Your task to perform on an android device: Open Wikipedia Image 0: 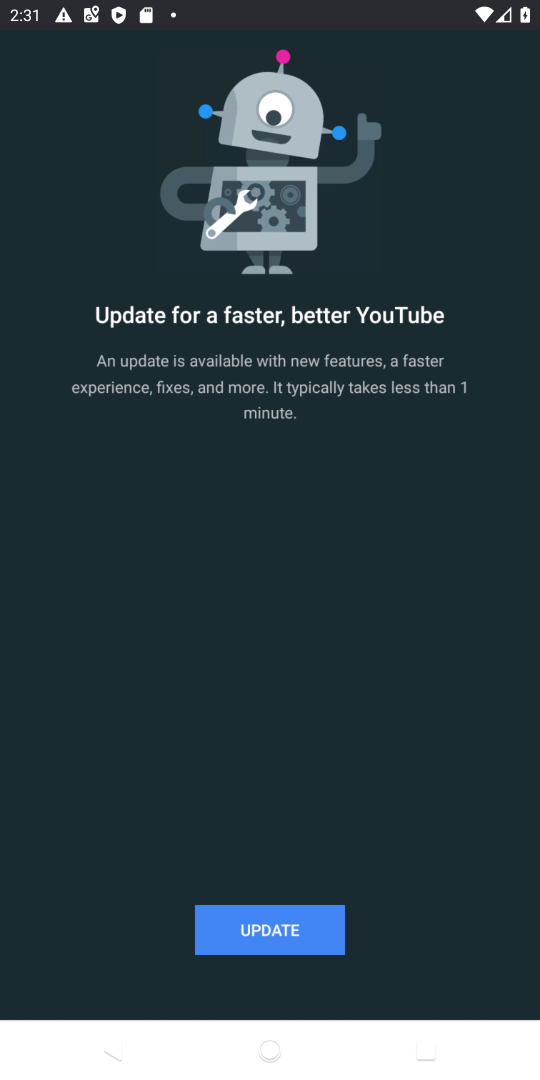
Step 0: drag from (129, 14) to (333, 75)
Your task to perform on an android device: Open Wikipedia Image 1: 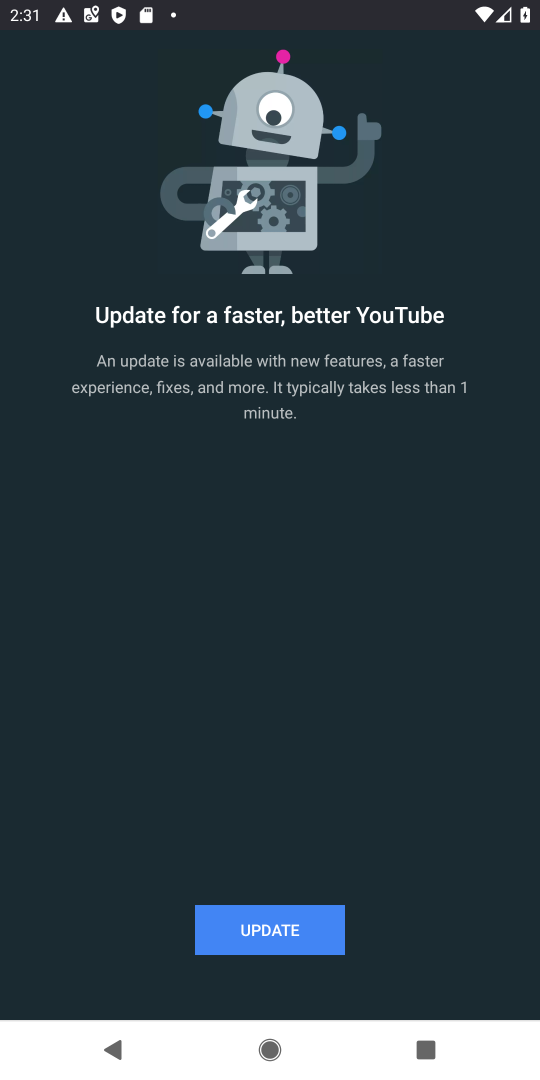
Step 1: press back button
Your task to perform on an android device: Open Wikipedia Image 2: 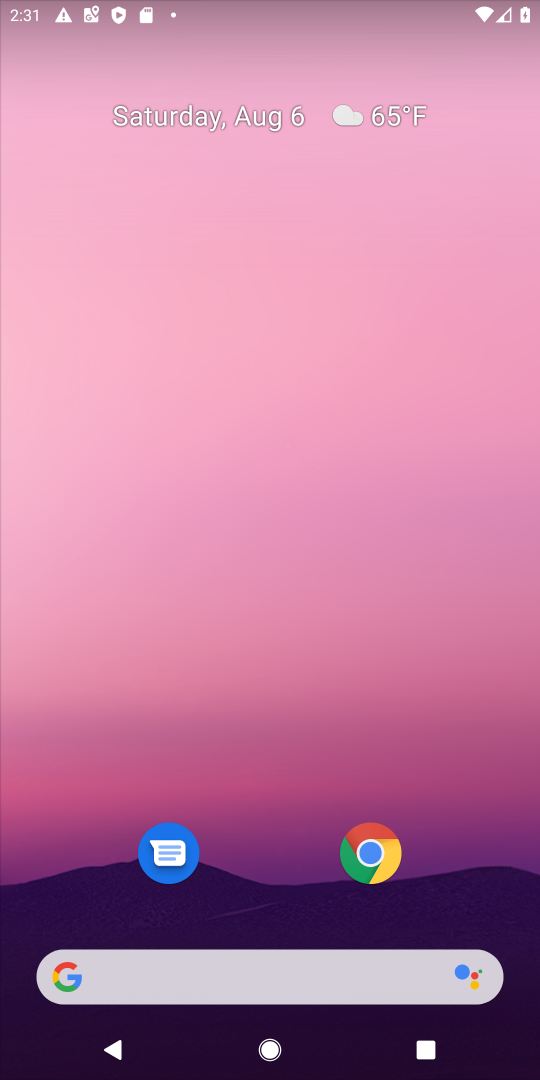
Step 2: click (370, 841)
Your task to perform on an android device: Open Wikipedia Image 3: 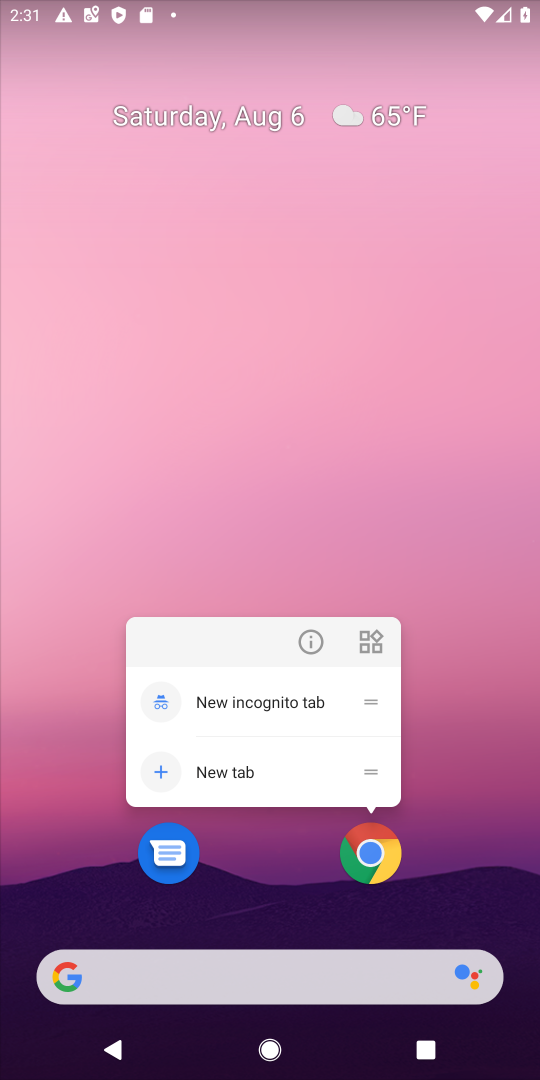
Step 3: click (382, 844)
Your task to perform on an android device: Open Wikipedia Image 4: 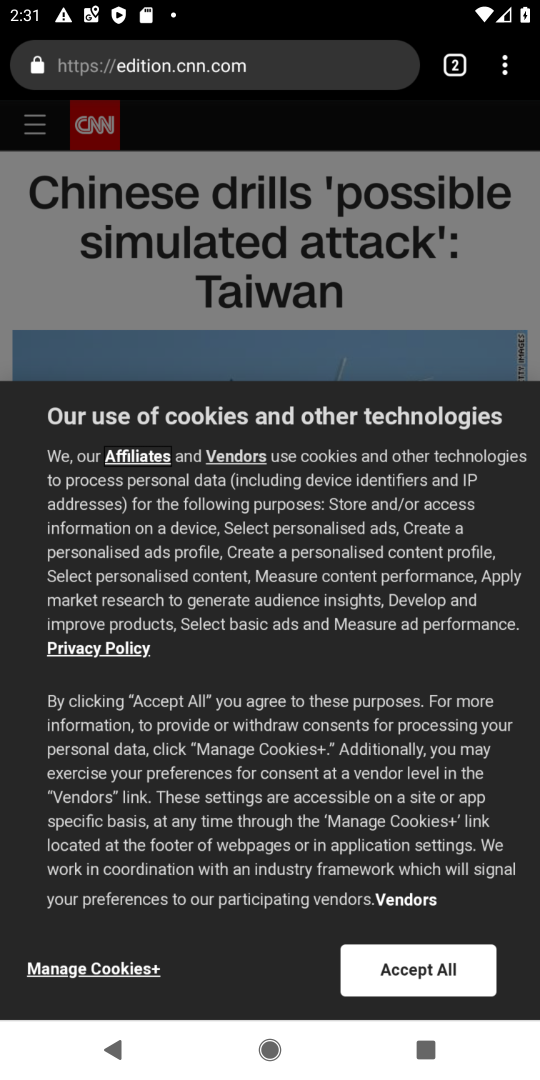
Step 4: click (467, 60)
Your task to perform on an android device: Open Wikipedia Image 5: 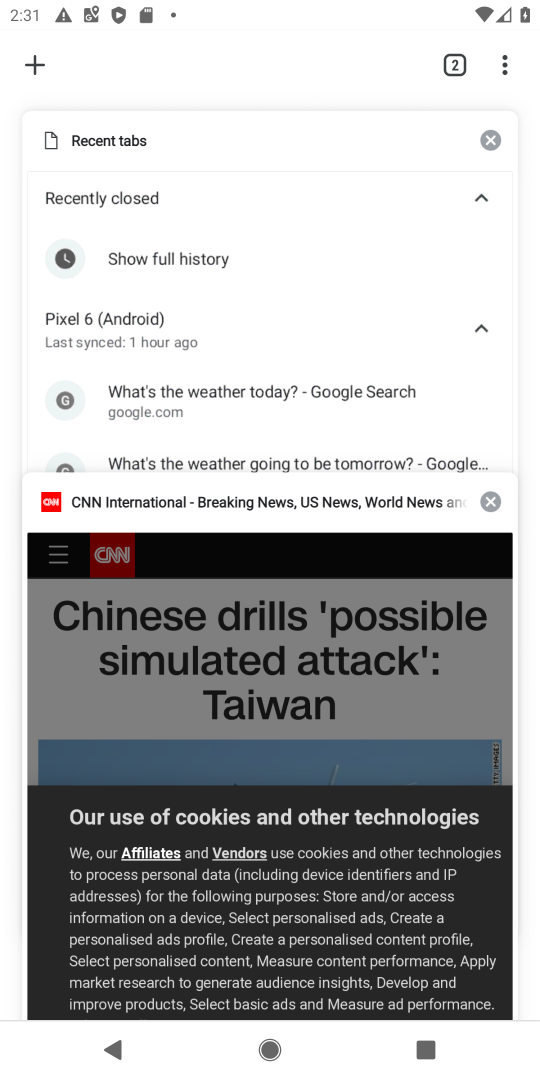
Step 5: click (44, 70)
Your task to perform on an android device: Open Wikipedia Image 6: 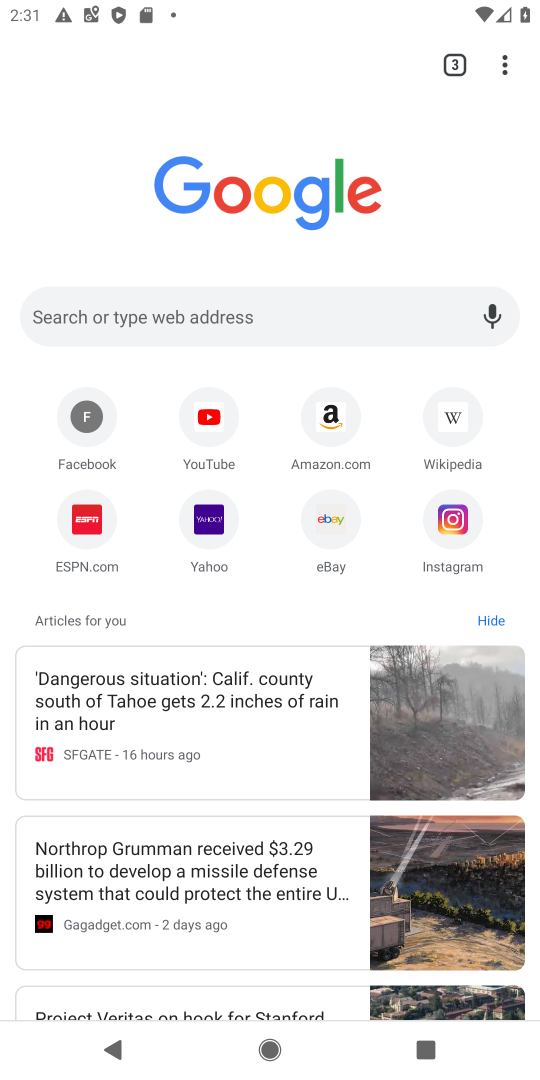
Step 6: click (446, 421)
Your task to perform on an android device: Open Wikipedia Image 7: 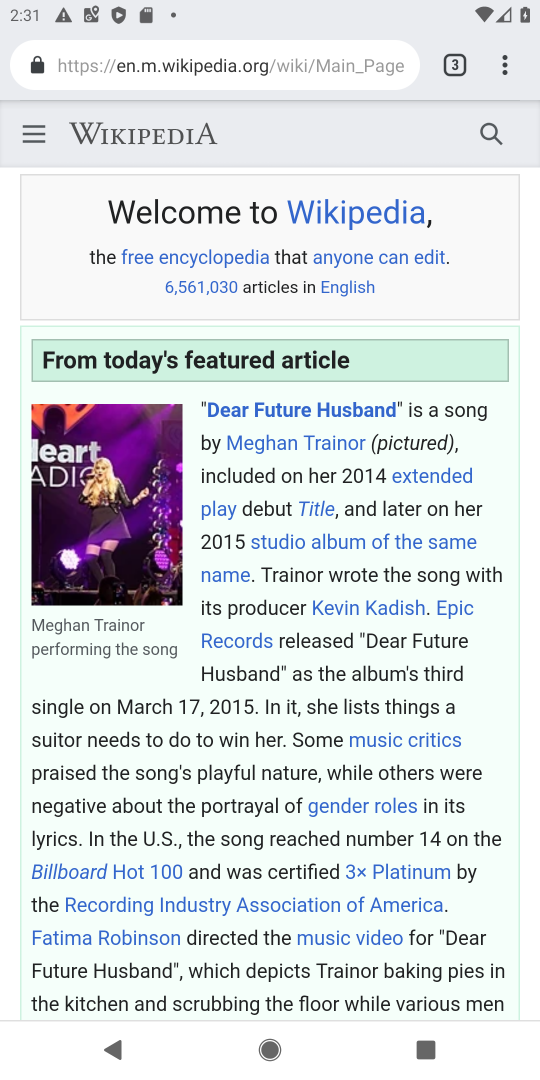
Step 7: task complete